Your task to perform on an android device: When is my next meeting? Image 0: 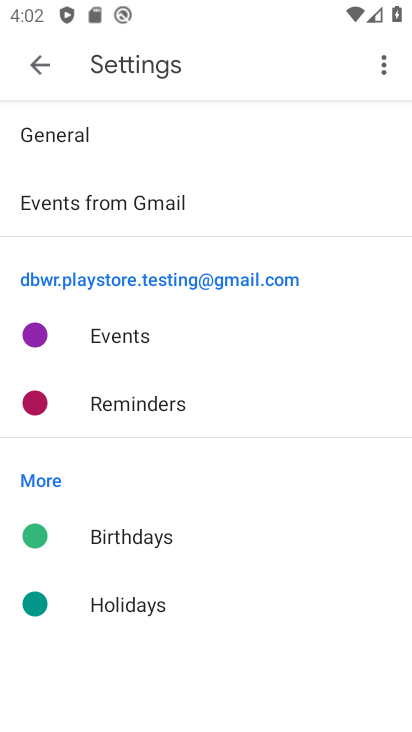
Step 0: press home button
Your task to perform on an android device: When is my next meeting? Image 1: 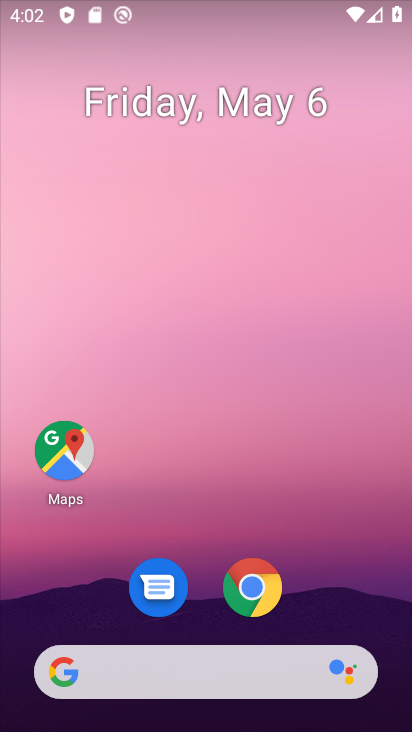
Step 1: drag from (248, 705) to (290, 160)
Your task to perform on an android device: When is my next meeting? Image 2: 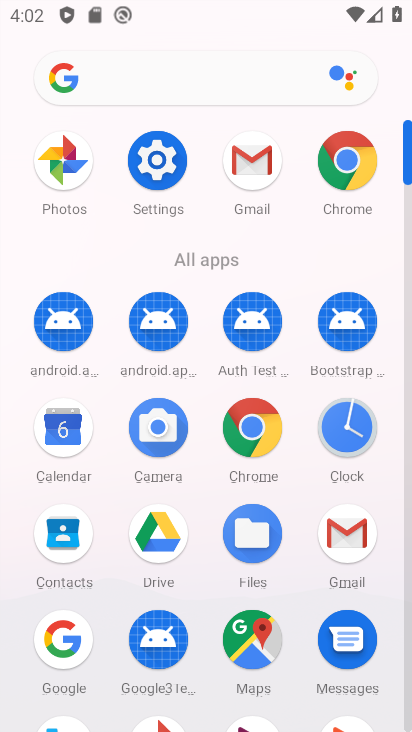
Step 2: click (64, 430)
Your task to perform on an android device: When is my next meeting? Image 3: 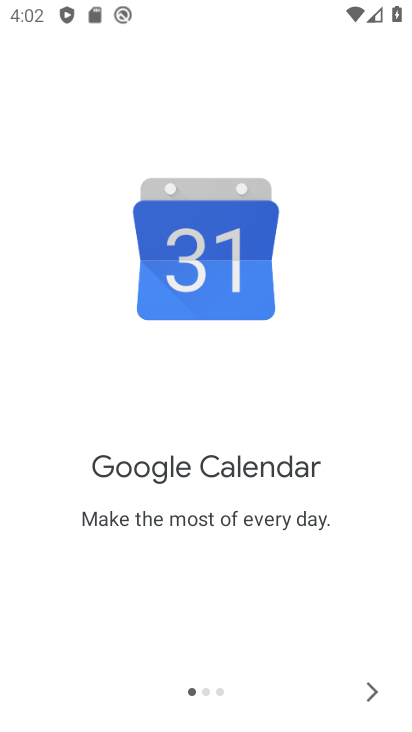
Step 3: click (366, 691)
Your task to perform on an android device: When is my next meeting? Image 4: 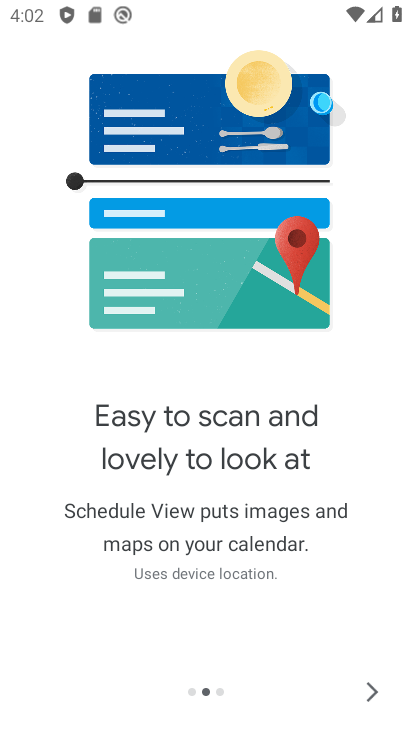
Step 4: click (364, 686)
Your task to perform on an android device: When is my next meeting? Image 5: 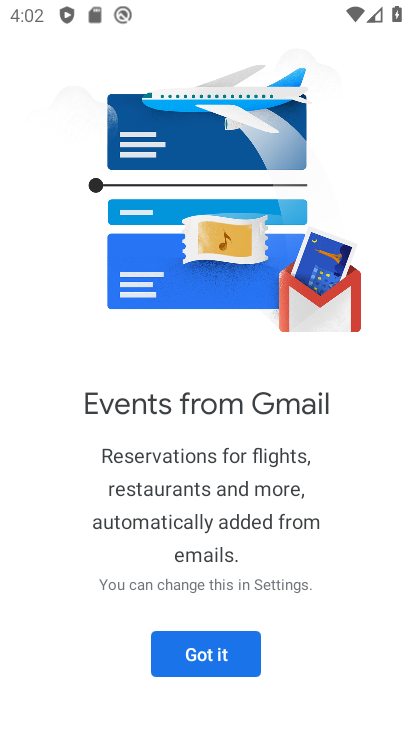
Step 5: click (236, 650)
Your task to perform on an android device: When is my next meeting? Image 6: 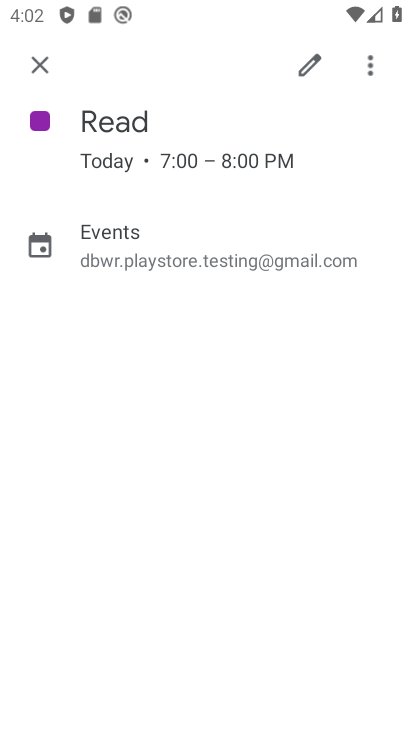
Step 6: click (39, 72)
Your task to perform on an android device: When is my next meeting? Image 7: 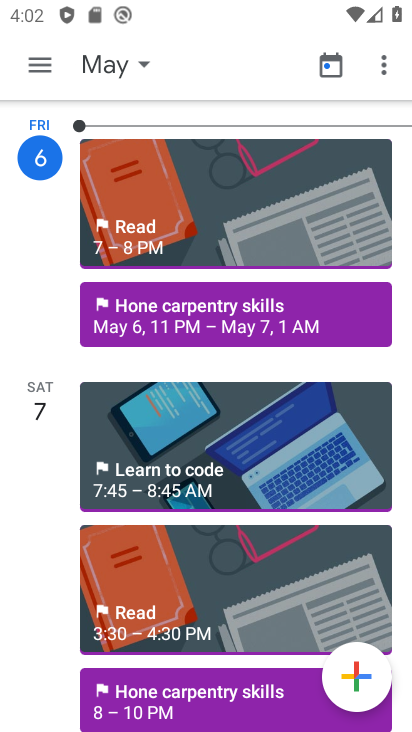
Step 7: task complete